Your task to perform on an android device: change text size in settings app Image 0: 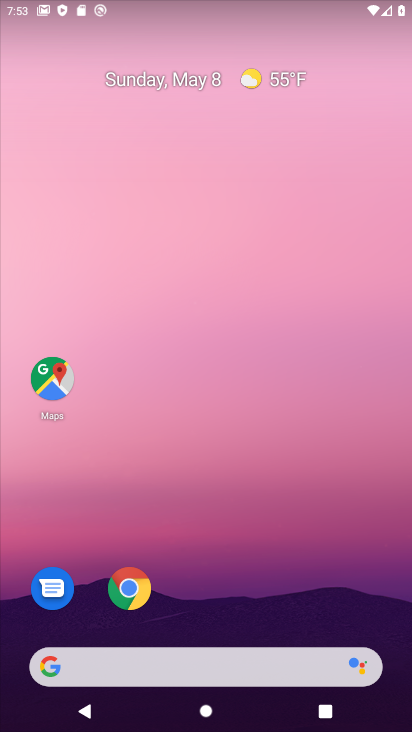
Step 0: drag from (338, 617) to (302, 30)
Your task to perform on an android device: change text size in settings app Image 1: 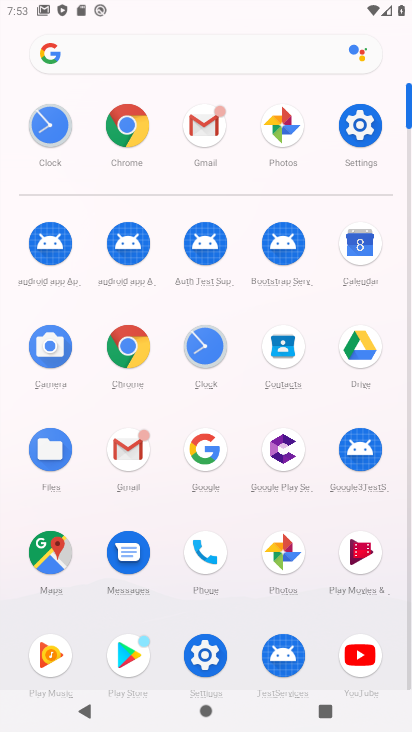
Step 1: click (213, 652)
Your task to perform on an android device: change text size in settings app Image 2: 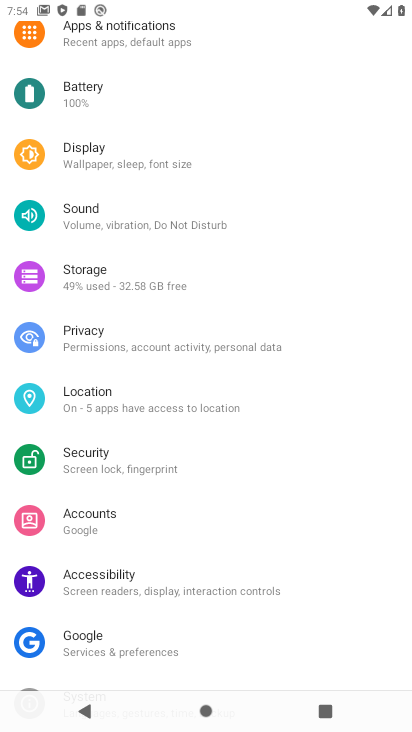
Step 2: click (186, 161)
Your task to perform on an android device: change text size in settings app Image 3: 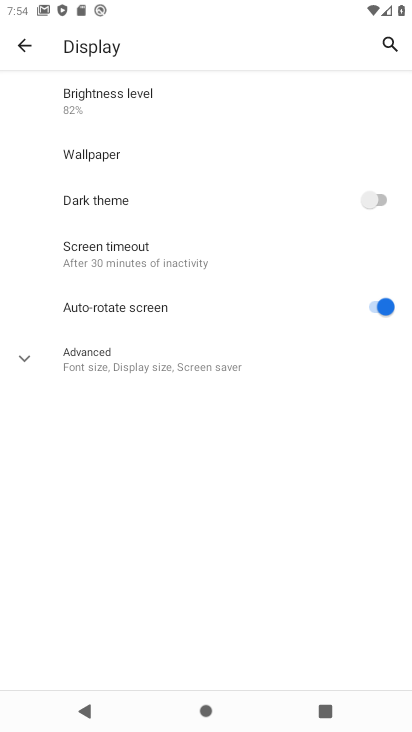
Step 3: click (108, 364)
Your task to perform on an android device: change text size in settings app Image 4: 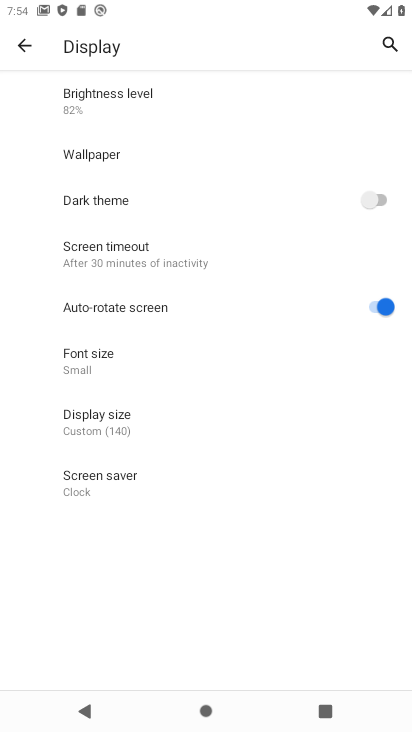
Step 4: click (108, 364)
Your task to perform on an android device: change text size in settings app Image 5: 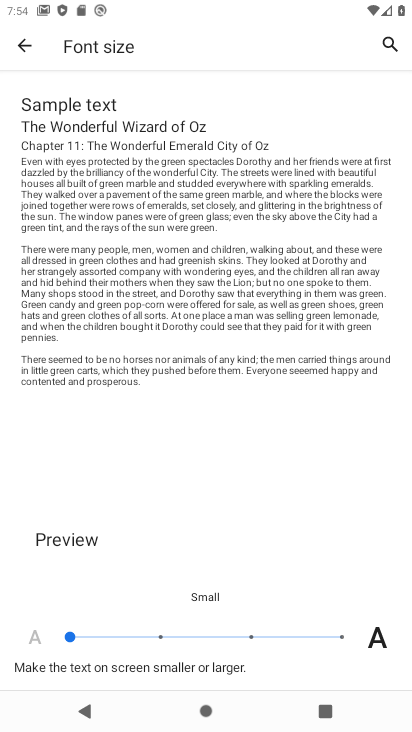
Step 5: click (162, 641)
Your task to perform on an android device: change text size in settings app Image 6: 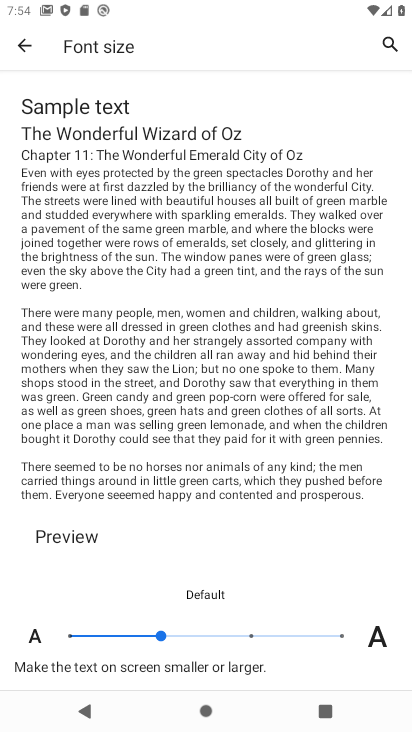
Step 6: task complete